Your task to perform on an android device: Do I have any events this weekend? Image 0: 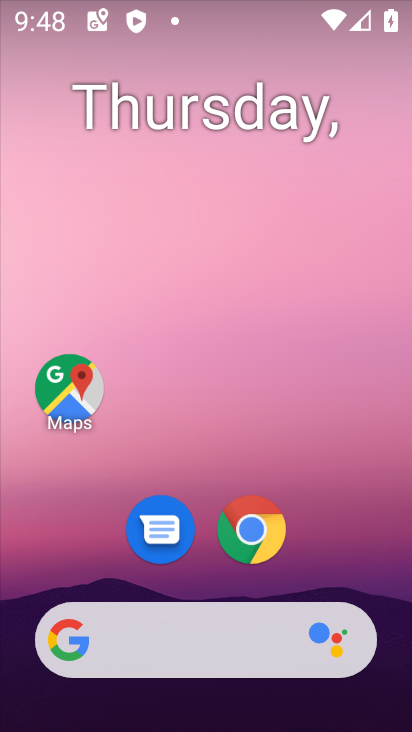
Step 0: drag from (217, 703) to (247, 26)
Your task to perform on an android device: Do I have any events this weekend? Image 1: 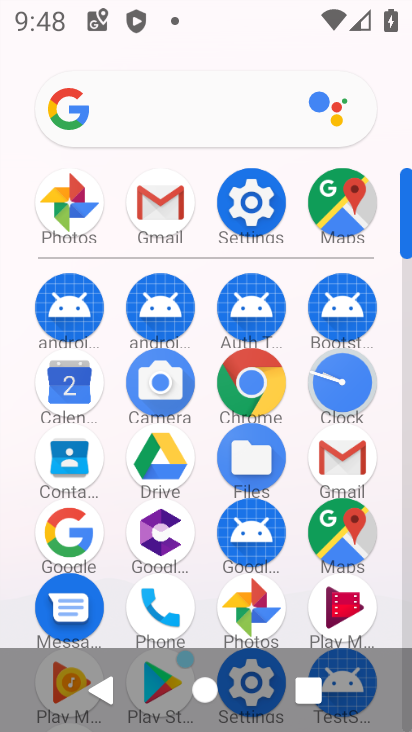
Step 1: click (63, 385)
Your task to perform on an android device: Do I have any events this weekend? Image 2: 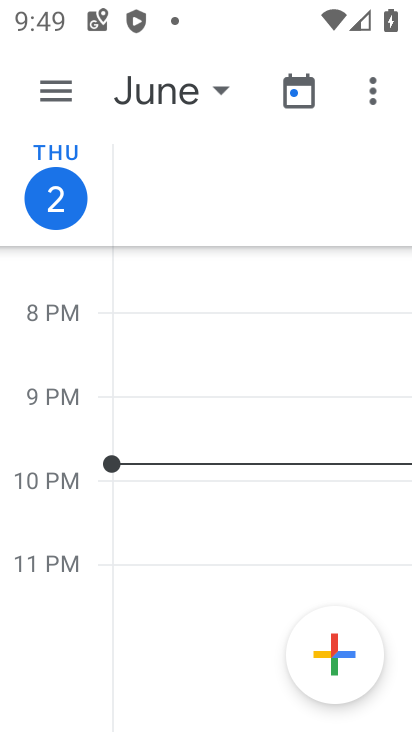
Step 2: click (179, 94)
Your task to perform on an android device: Do I have any events this weekend? Image 3: 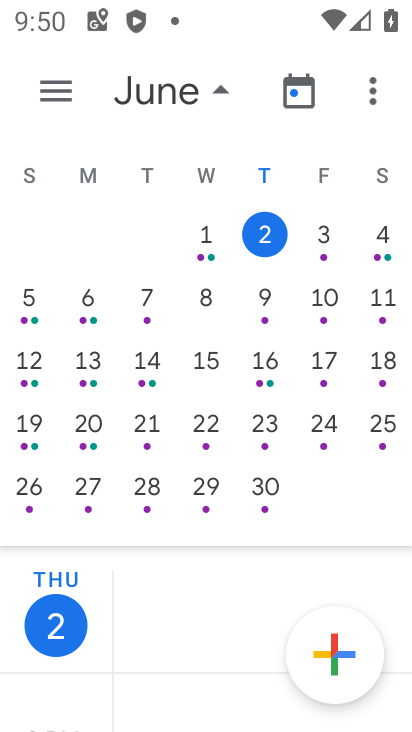
Step 3: click (390, 227)
Your task to perform on an android device: Do I have any events this weekend? Image 4: 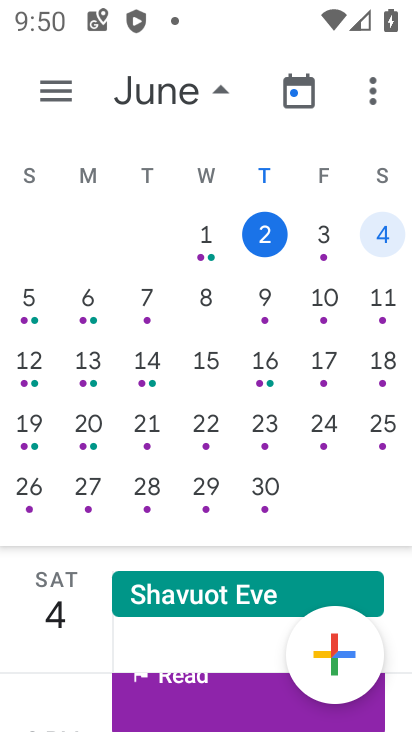
Step 4: task complete